Your task to perform on an android device: change the clock display to analog Image 0: 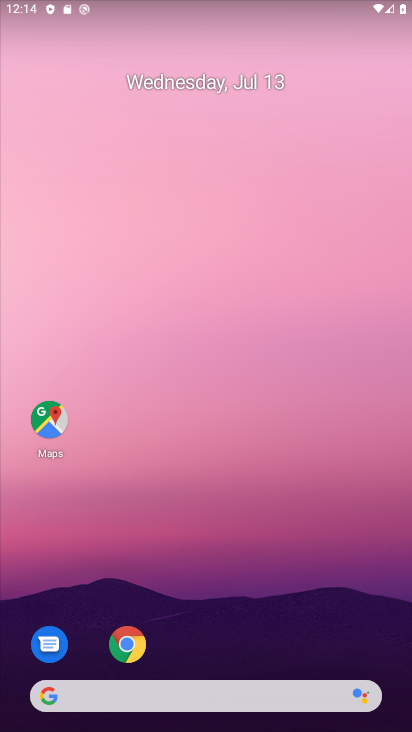
Step 0: drag from (373, 604) to (268, 82)
Your task to perform on an android device: change the clock display to analog Image 1: 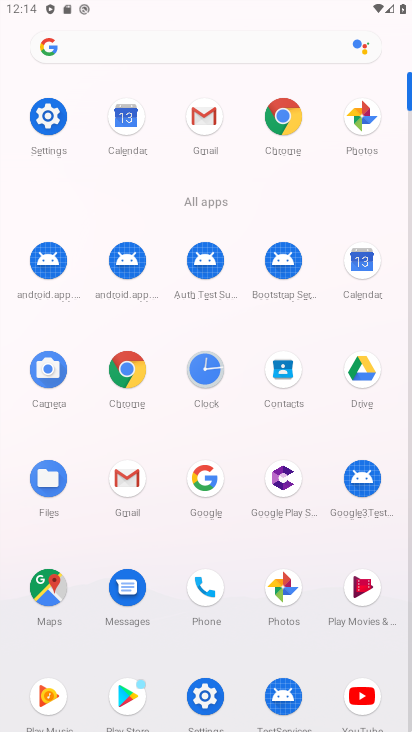
Step 1: click (207, 363)
Your task to perform on an android device: change the clock display to analog Image 2: 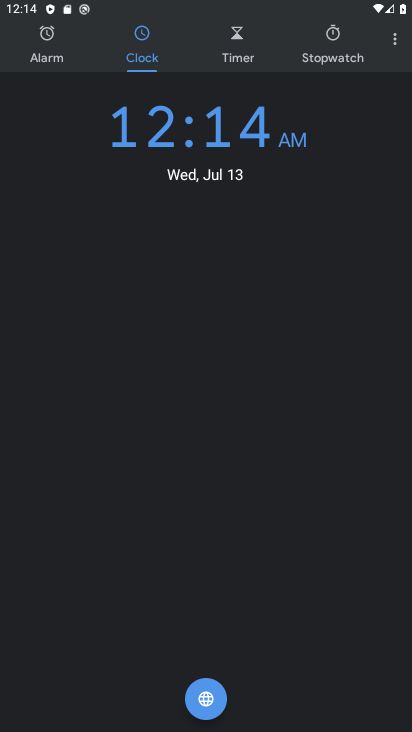
Step 2: click (396, 43)
Your task to perform on an android device: change the clock display to analog Image 3: 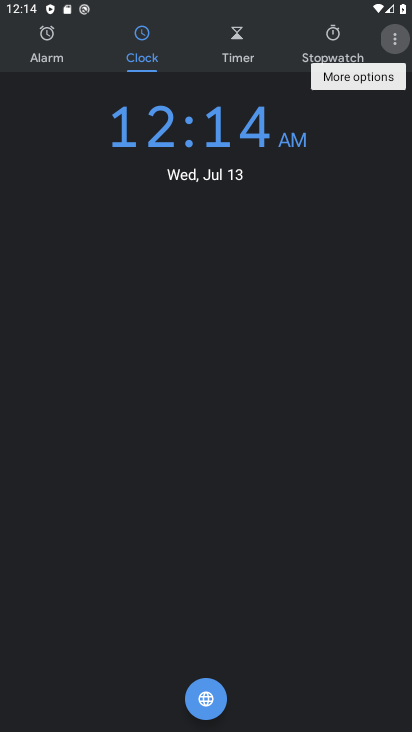
Step 3: click (396, 43)
Your task to perform on an android device: change the clock display to analog Image 4: 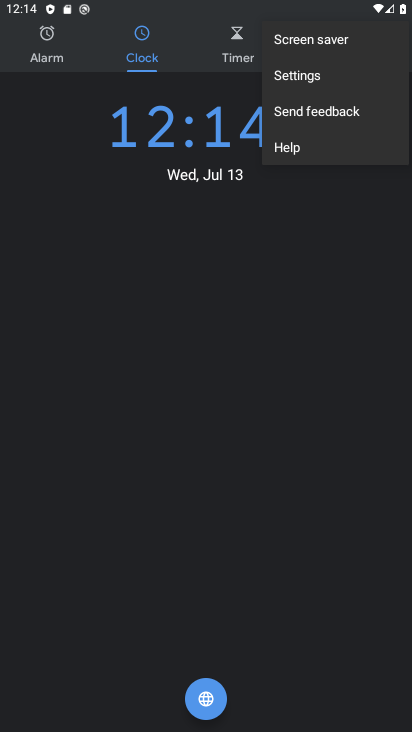
Step 4: click (266, 76)
Your task to perform on an android device: change the clock display to analog Image 5: 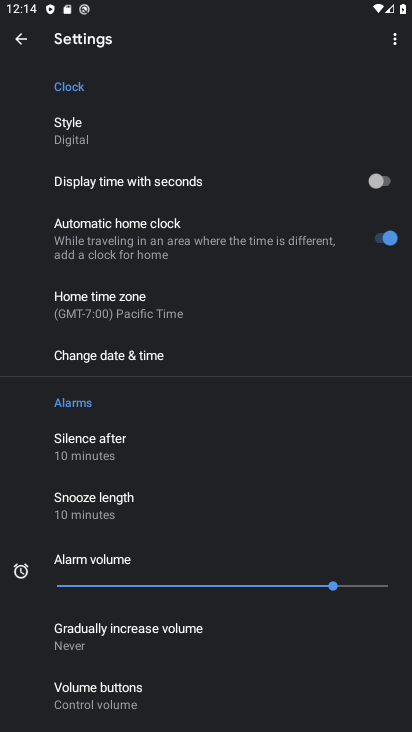
Step 5: click (75, 127)
Your task to perform on an android device: change the clock display to analog Image 6: 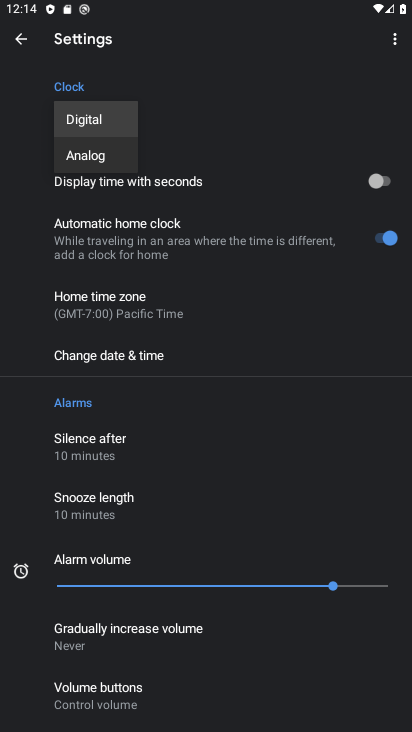
Step 6: click (117, 157)
Your task to perform on an android device: change the clock display to analog Image 7: 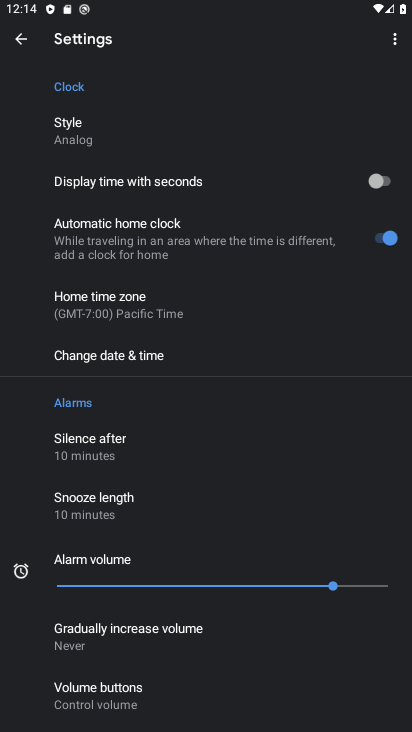
Step 7: task complete